Your task to perform on an android device: turn on notifications settings in the gmail app Image 0: 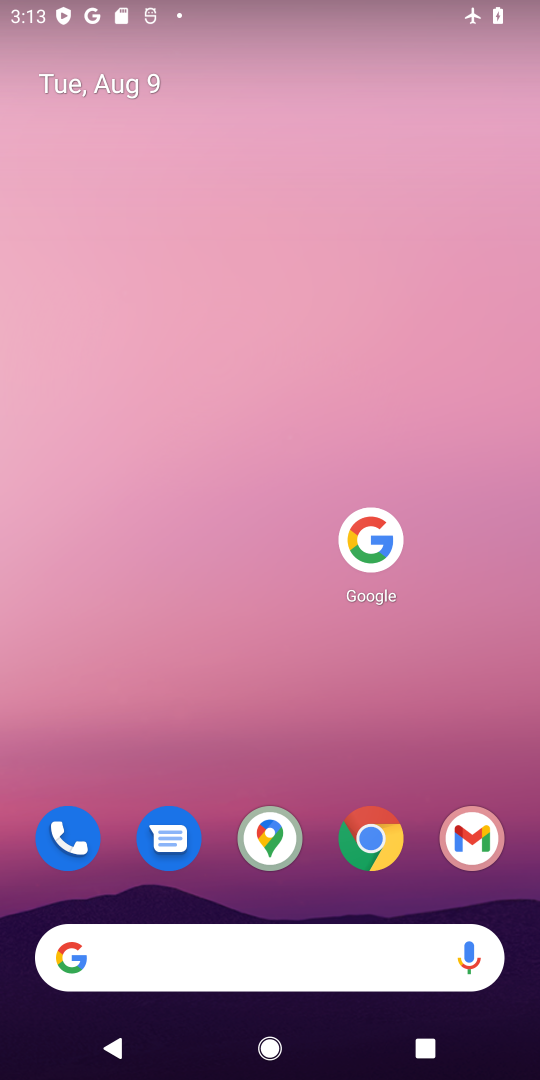
Step 0: drag from (228, 756) to (215, 95)
Your task to perform on an android device: turn on notifications settings in the gmail app Image 1: 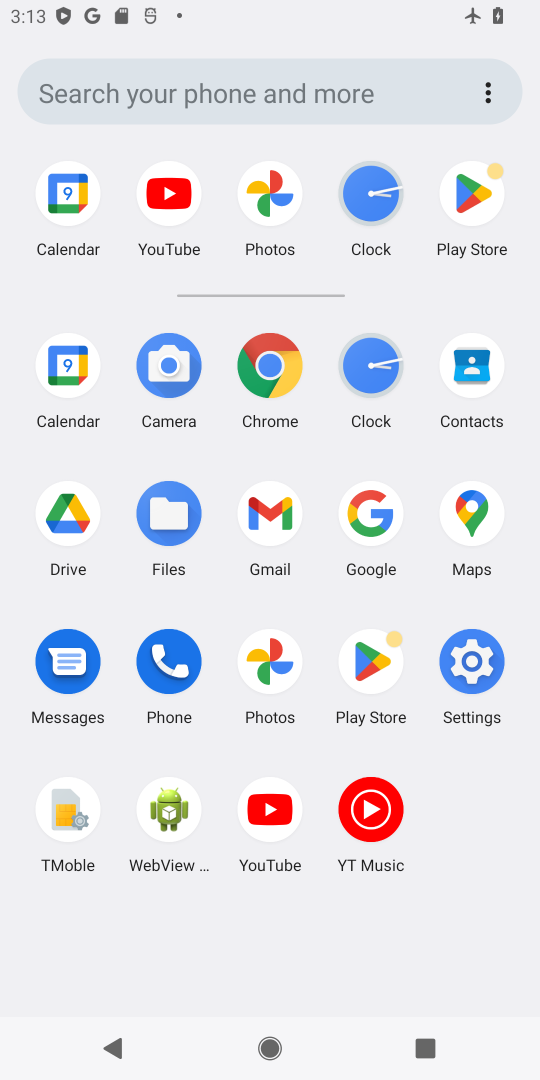
Step 1: click (280, 513)
Your task to perform on an android device: turn on notifications settings in the gmail app Image 2: 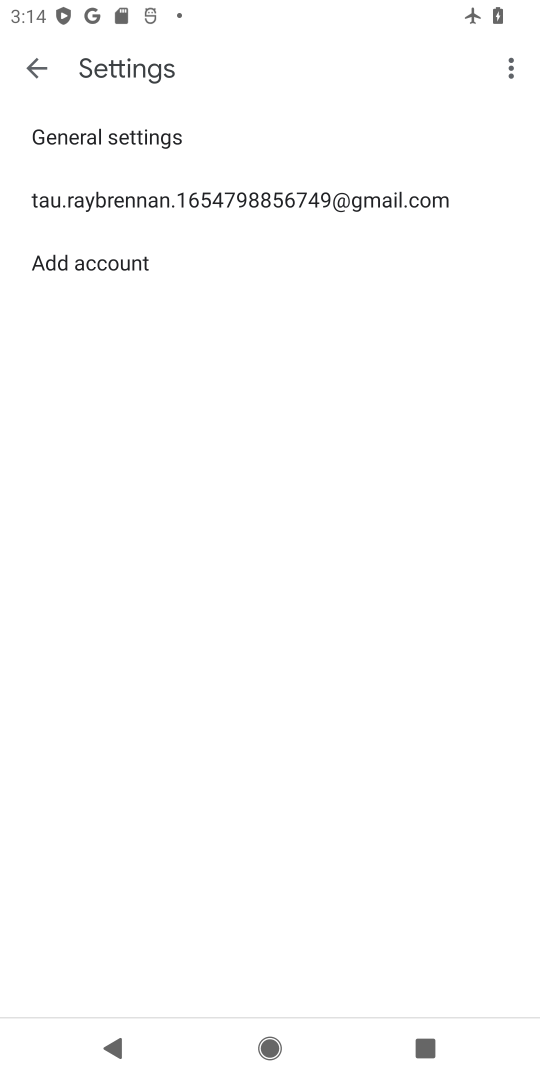
Step 2: click (292, 206)
Your task to perform on an android device: turn on notifications settings in the gmail app Image 3: 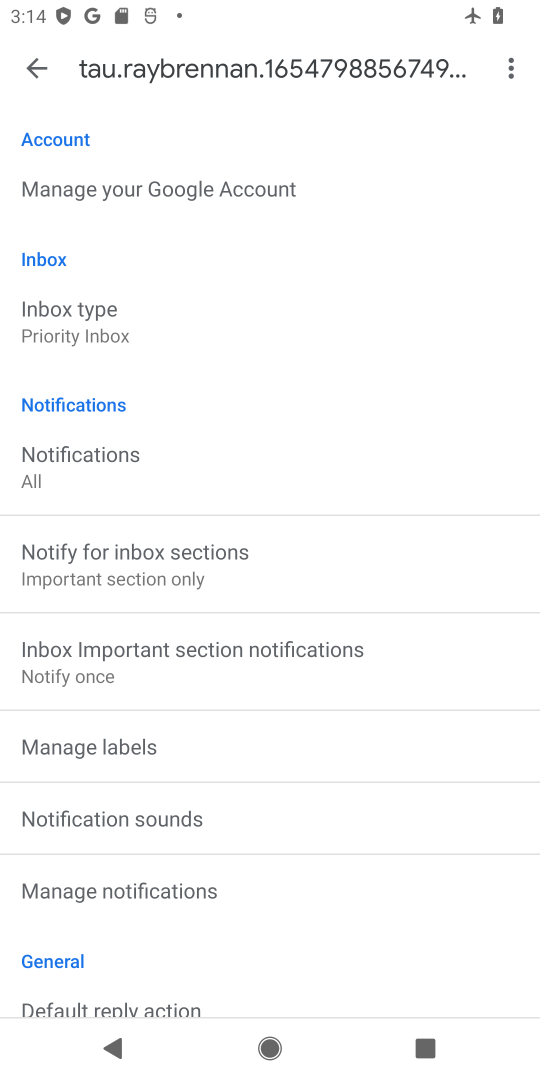
Step 3: click (133, 894)
Your task to perform on an android device: turn on notifications settings in the gmail app Image 4: 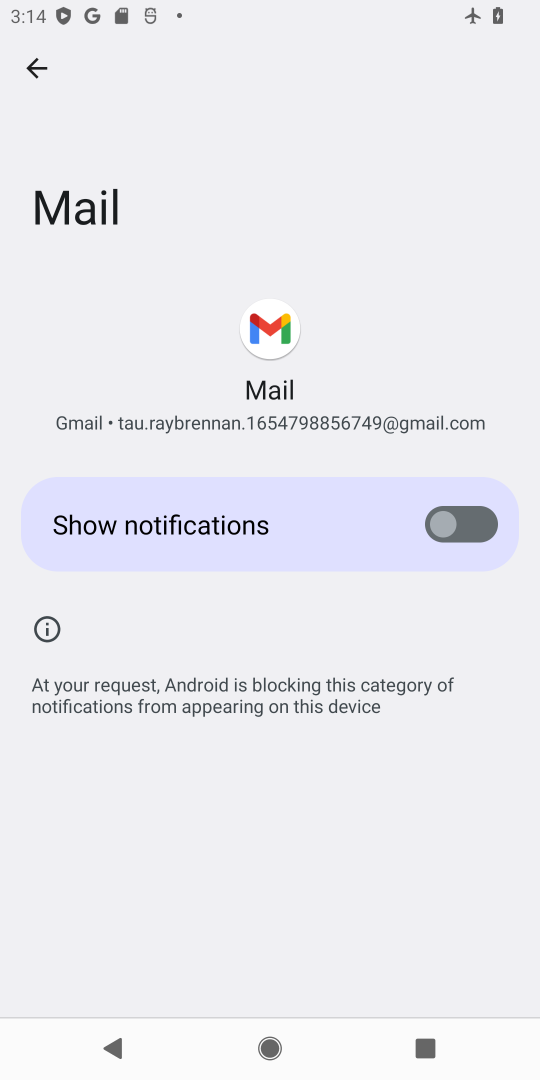
Step 4: click (454, 521)
Your task to perform on an android device: turn on notifications settings in the gmail app Image 5: 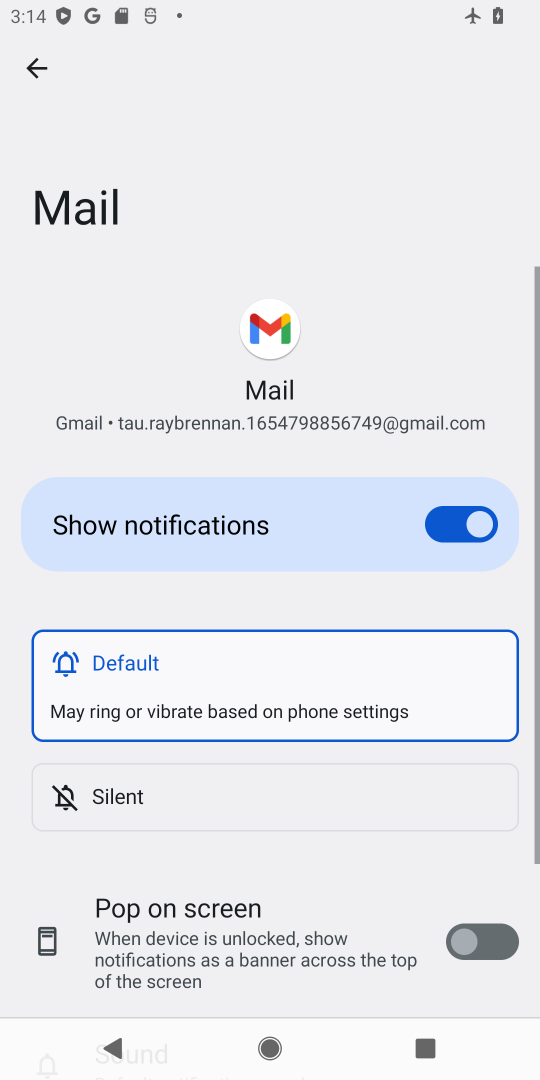
Step 5: task complete